Your task to perform on an android device: Open calendar and show me the third week of next month Image 0: 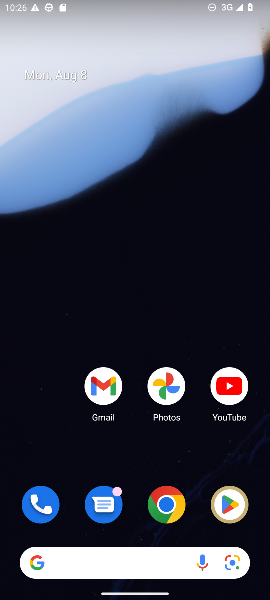
Step 0: drag from (129, 86) to (124, 0)
Your task to perform on an android device: Open calendar and show me the third week of next month Image 1: 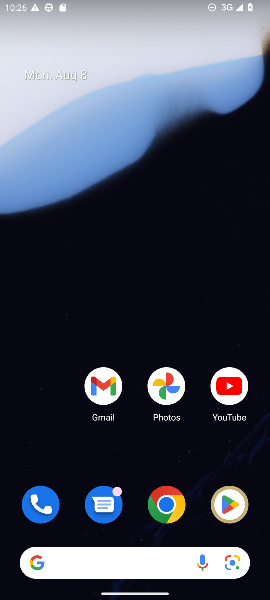
Step 1: drag from (137, 440) to (219, 83)
Your task to perform on an android device: Open calendar and show me the third week of next month Image 2: 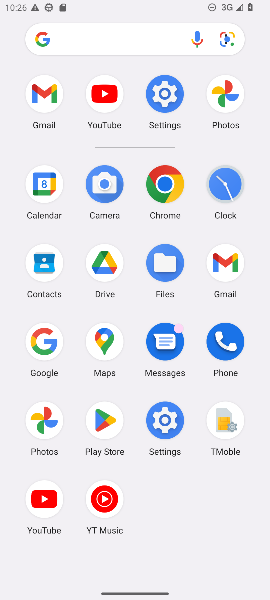
Step 2: click (50, 192)
Your task to perform on an android device: Open calendar and show me the third week of next month Image 3: 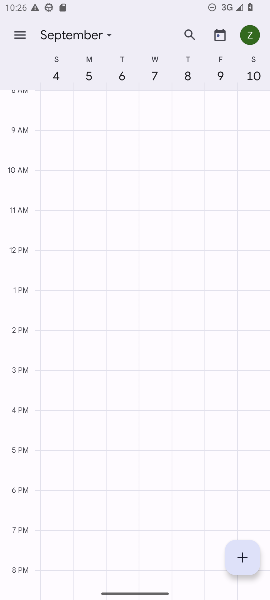
Step 3: task complete